Your task to perform on an android device: toggle notification dots Image 0: 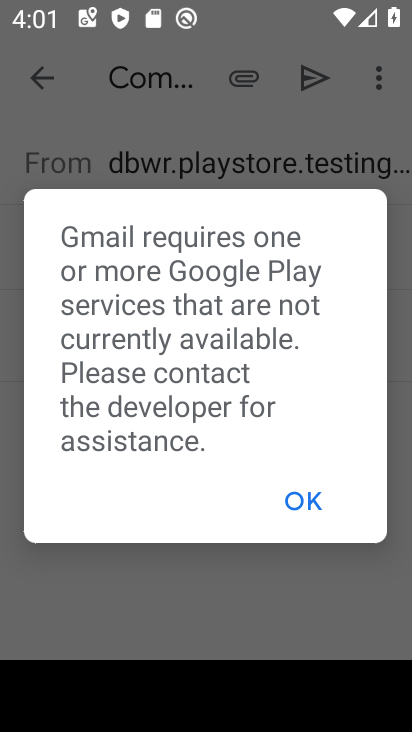
Step 0: press home button
Your task to perform on an android device: toggle notification dots Image 1: 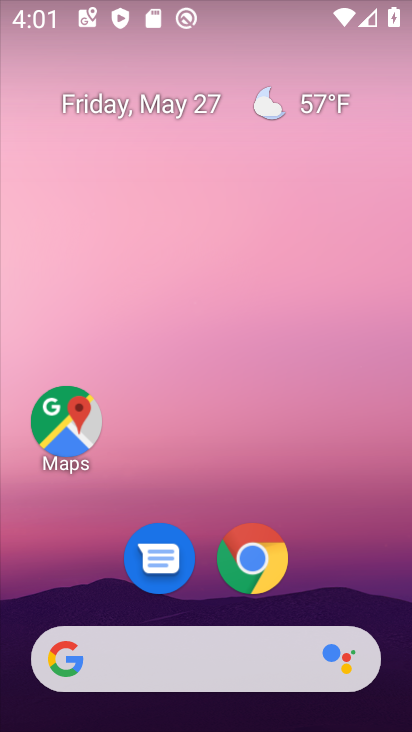
Step 1: drag from (314, 398) to (316, 182)
Your task to perform on an android device: toggle notification dots Image 2: 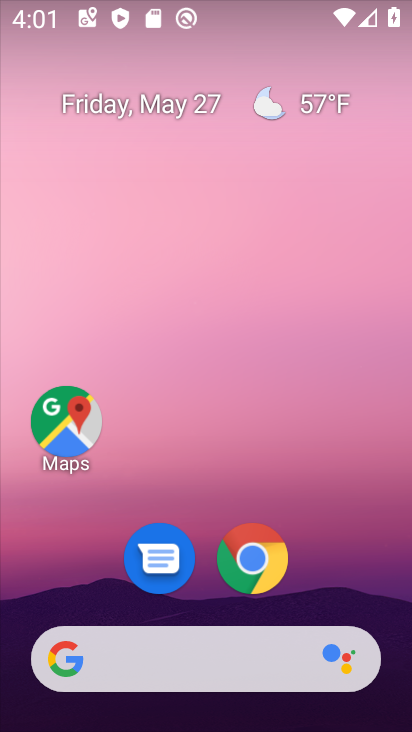
Step 2: drag from (330, 562) to (287, 58)
Your task to perform on an android device: toggle notification dots Image 3: 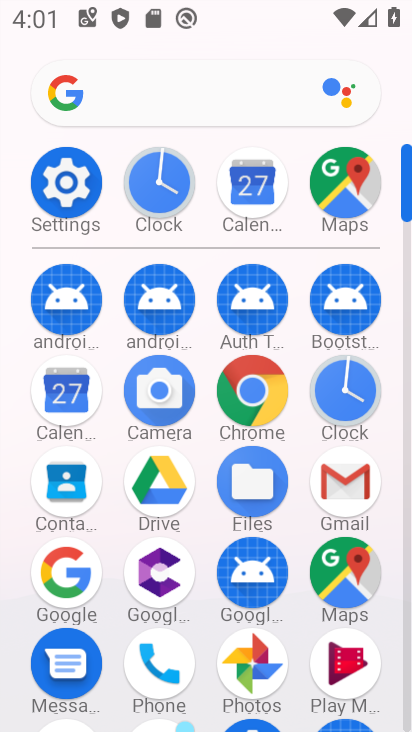
Step 3: click (63, 221)
Your task to perform on an android device: toggle notification dots Image 4: 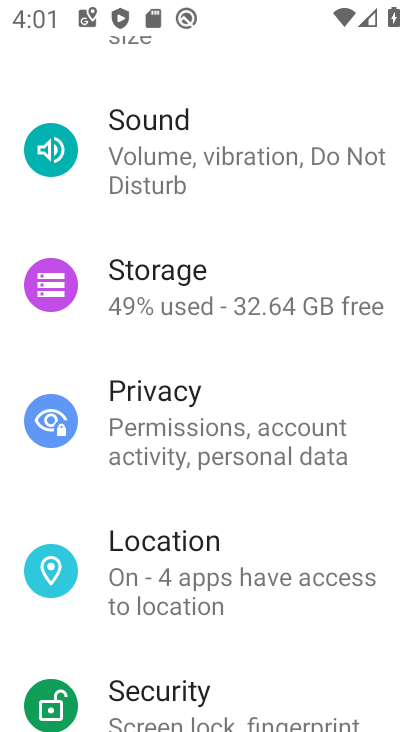
Step 4: task complete